Your task to perform on an android device: remove spam from my inbox in the gmail app Image 0: 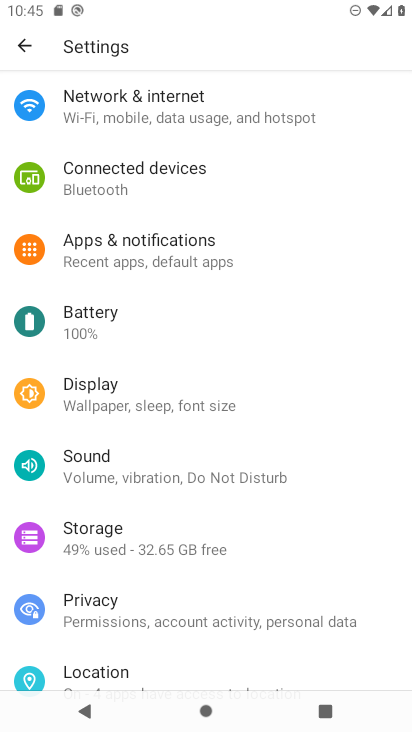
Step 0: press home button
Your task to perform on an android device: remove spam from my inbox in the gmail app Image 1: 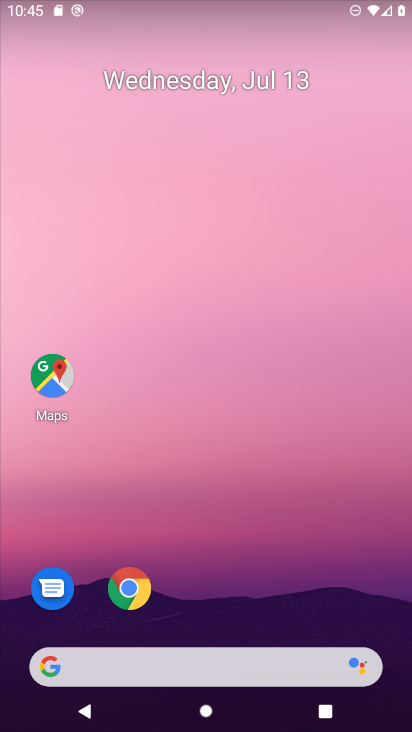
Step 1: drag from (230, 626) to (217, 10)
Your task to perform on an android device: remove spam from my inbox in the gmail app Image 2: 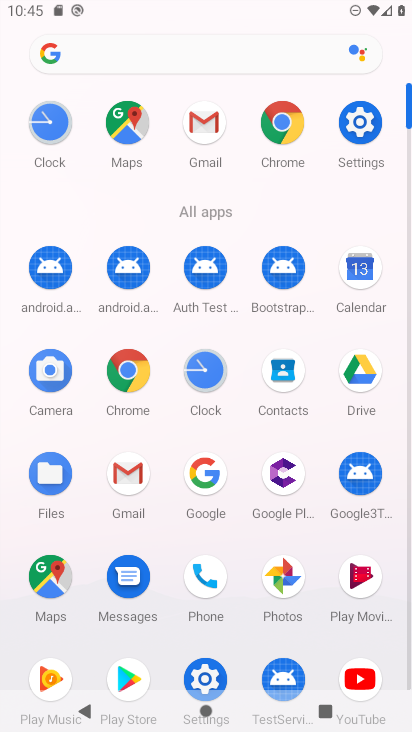
Step 2: click (125, 472)
Your task to perform on an android device: remove spam from my inbox in the gmail app Image 3: 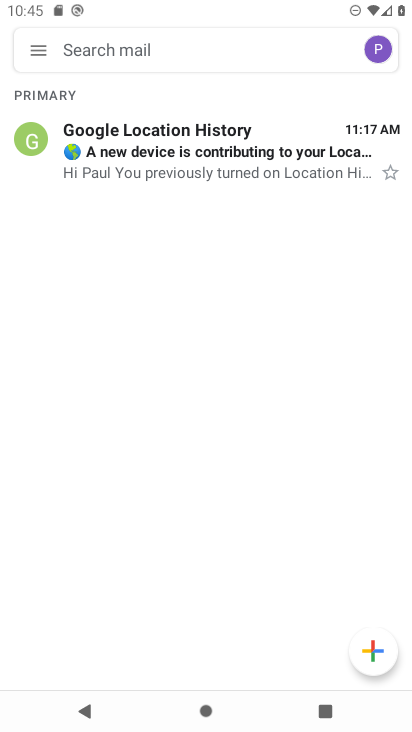
Step 3: click (46, 49)
Your task to perform on an android device: remove spam from my inbox in the gmail app Image 4: 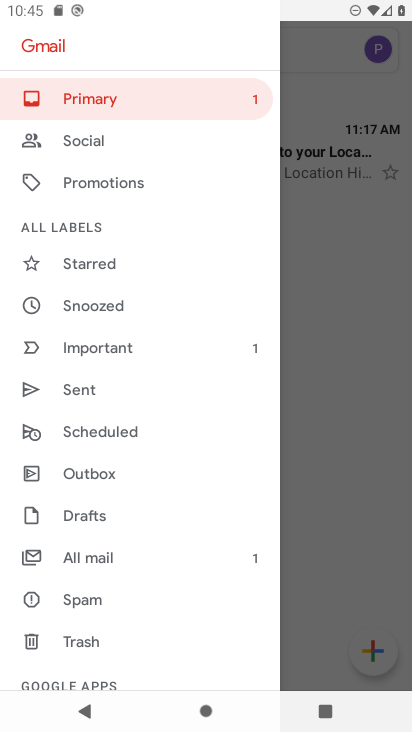
Step 4: click (95, 604)
Your task to perform on an android device: remove spam from my inbox in the gmail app Image 5: 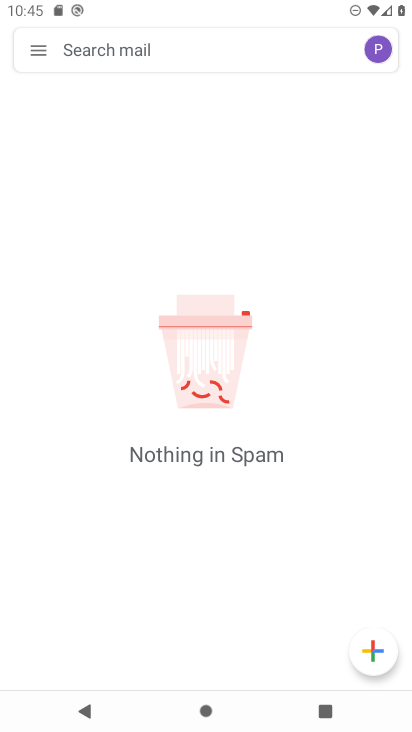
Step 5: task complete